Your task to perform on an android device: turn off airplane mode Image 0: 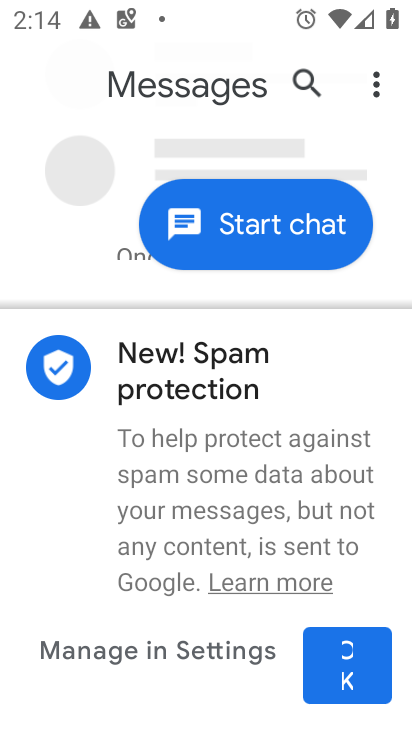
Step 0: press home button
Your task to perform on an android device: turn off airplane mode Image 1: 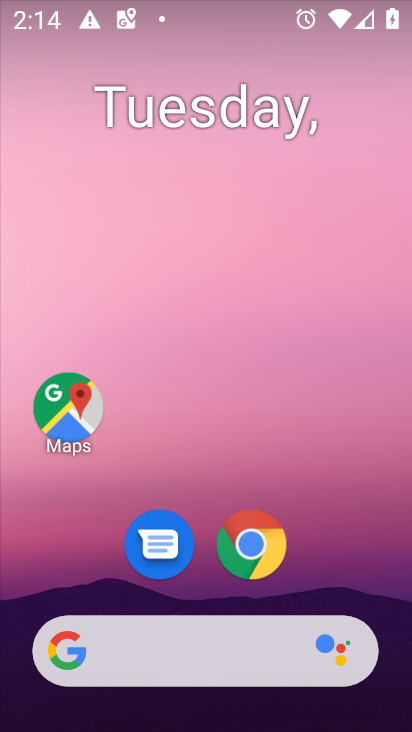
Step 1: drag from (334, 532) to (201, 7)
Your task to perform on an android device: turn off airplane mode Image 2: 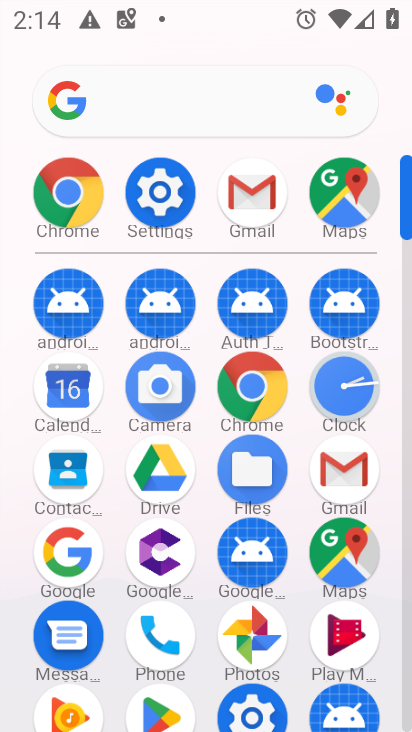
Step 2: click (162, 181)
Your task to perform on an android device: turn off airplane mode Image 3: 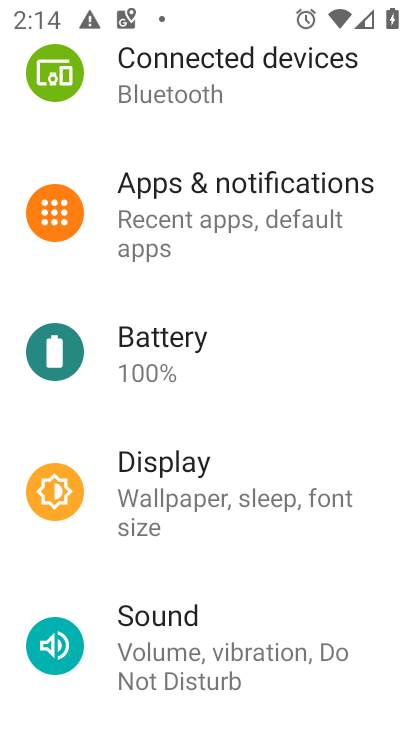
Step 3: drag from (280, 128) to (287, 688)
Your task to perform on an android device: turn off airplane mode Image 4: 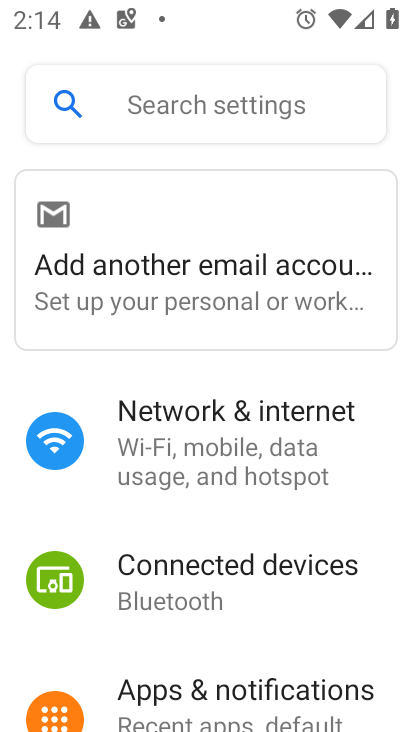
Step 4: click (218, 470)
Your task to perform on an android device: turn off airplane mode Image 5: 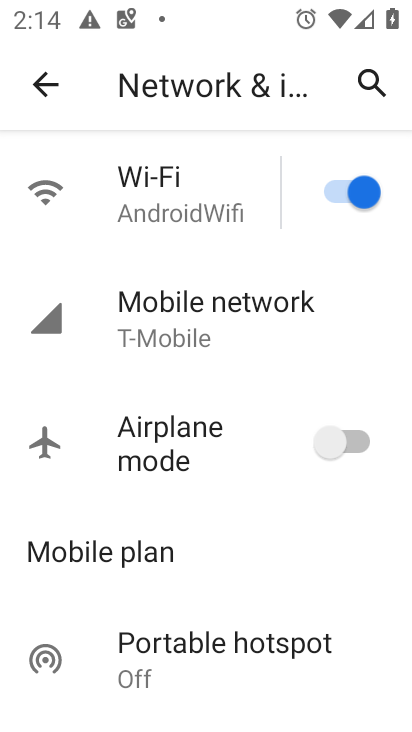
Step 5: task complete